Your task to perform on an android device: open app "Pinterest" (install if not already installed) Image 0: 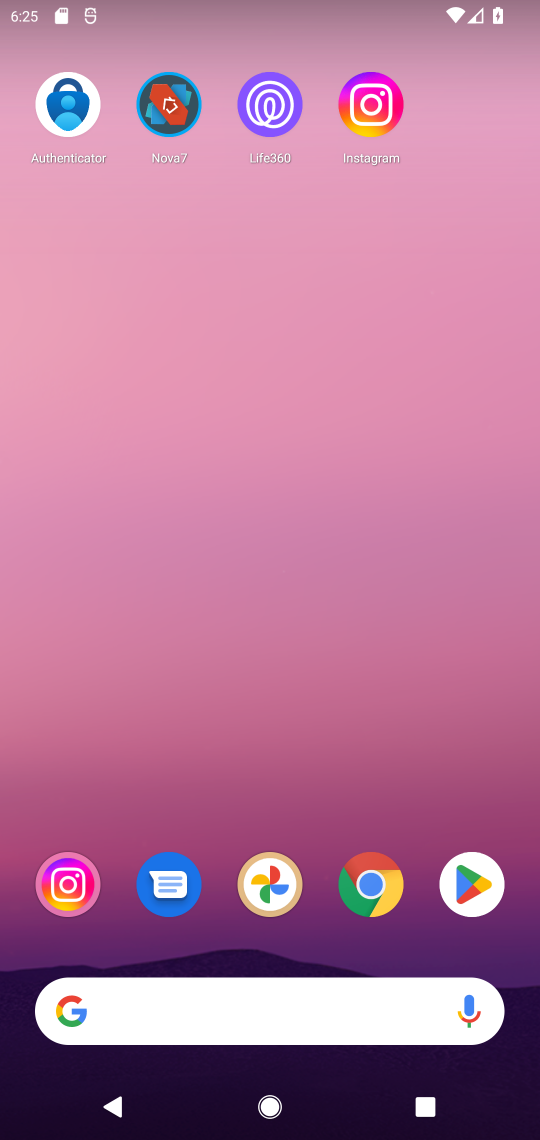
Step 0: press home button
Your task to perform on an android device: open app "Pinterest" (install if not already installed) Image 1: 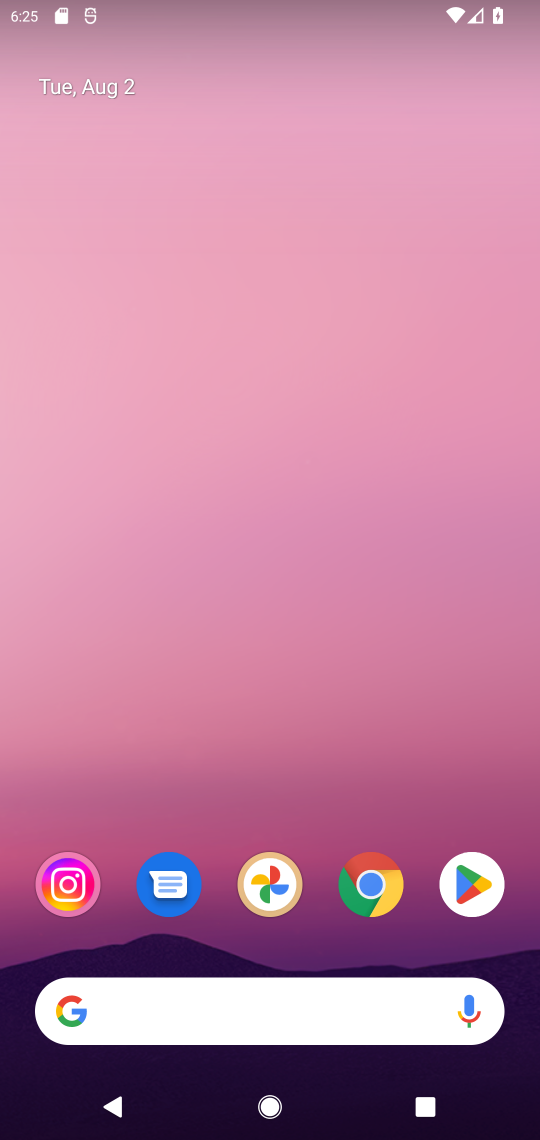
Step 1: click (449, 890)
Your task to perform on an android device: open app "Pinterest" (install if not already installed) Image 2: 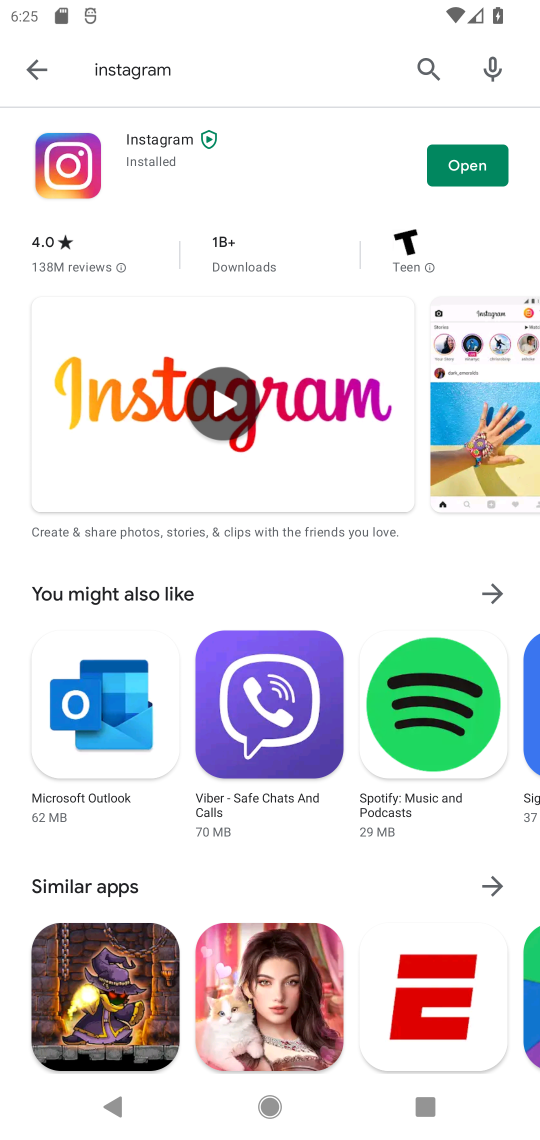
Step 2: click (441, 59)
Your task to perform on an android device: open app "Pinterest" (install if not already installed) Image 3: 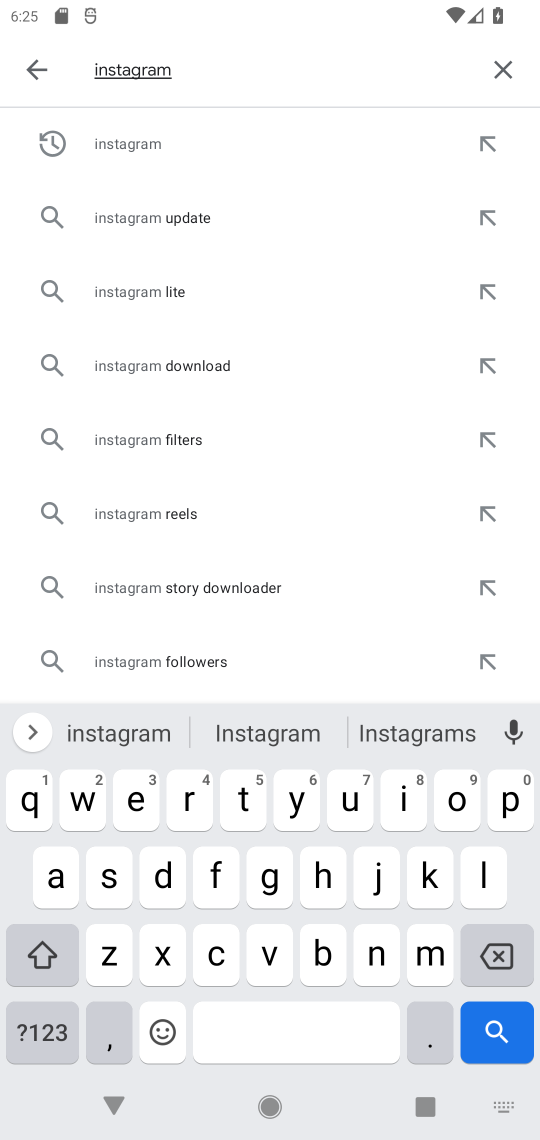
Step 3: click (502, 72)
Your task to perform on an android device: open app "Pinterest" (install if not already installed) Image 4: 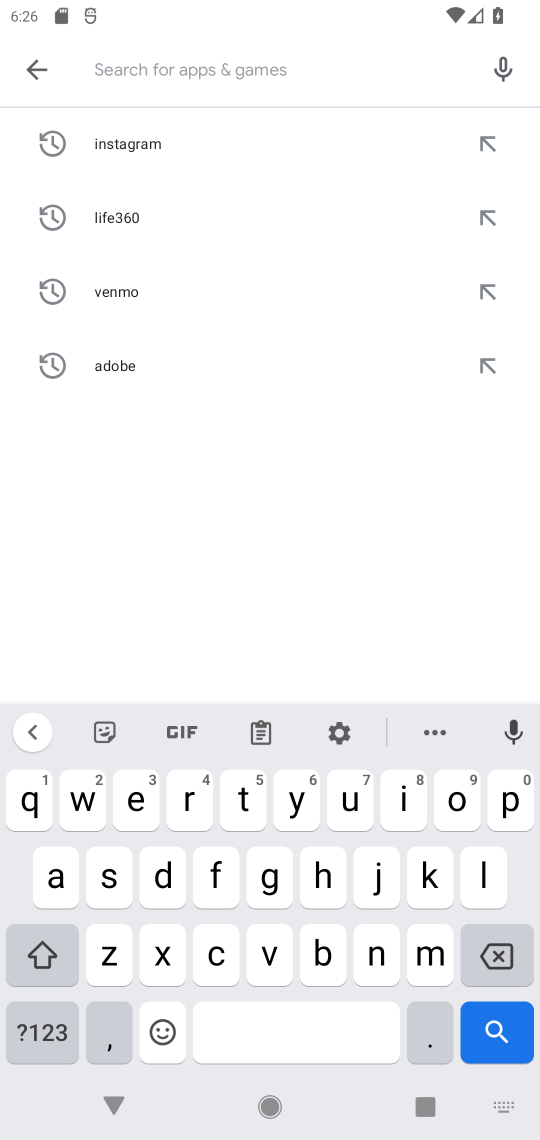
Step 4: click (506, 805)
Your task to perform on an android device: open app "Pinterest" (install if not already installed) Image 5: 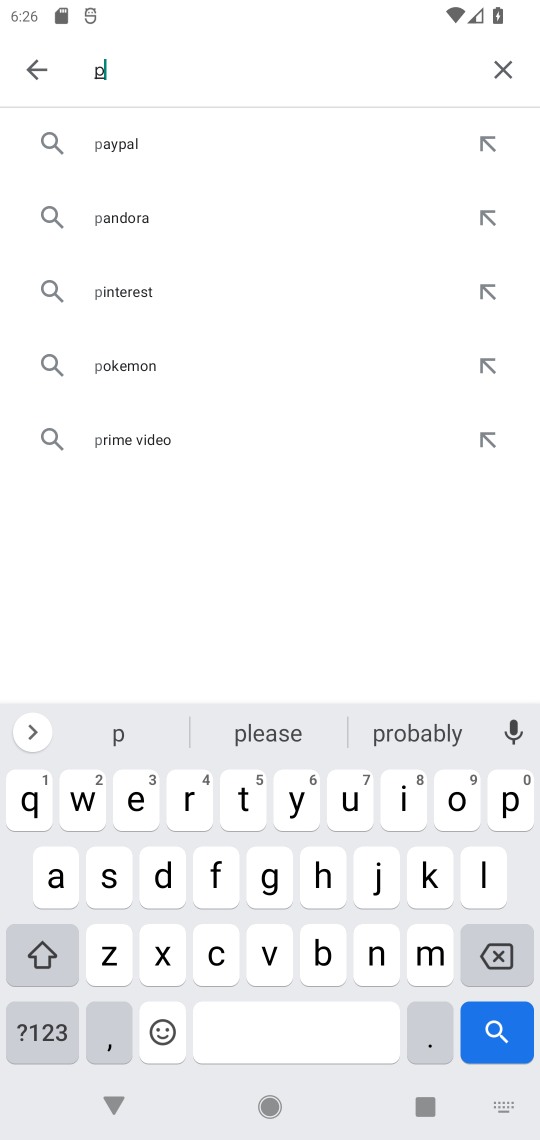
Step 5: click (189, 801)
Your task to perform on an android device: open app "Pinterest" (install if not already installed) Image 6: 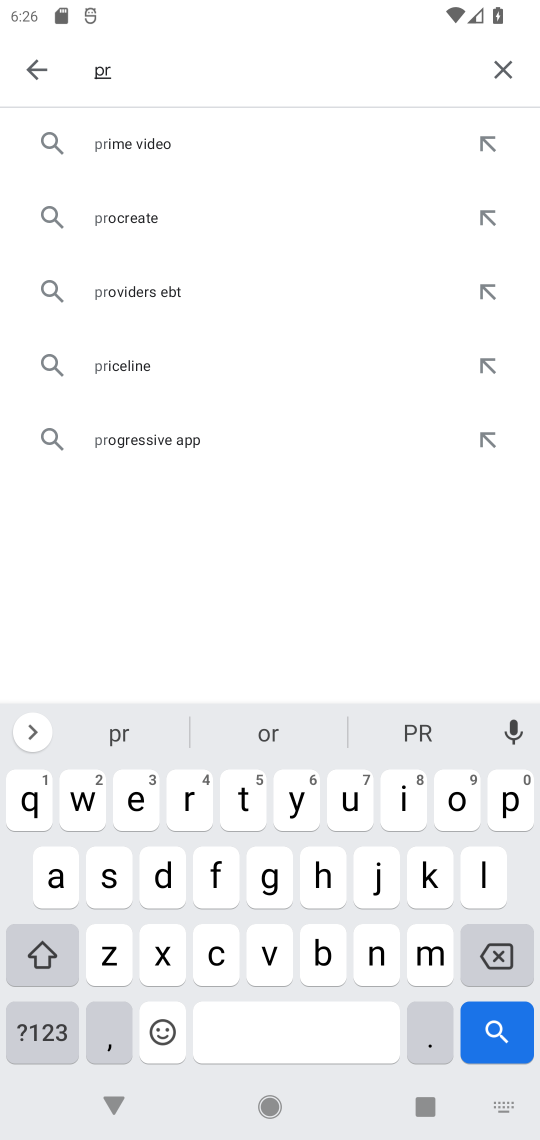
Step 6: click (493, 949)
Your task to perform on an android device: open app "Pinterest" (install if not already installed) Image 7: 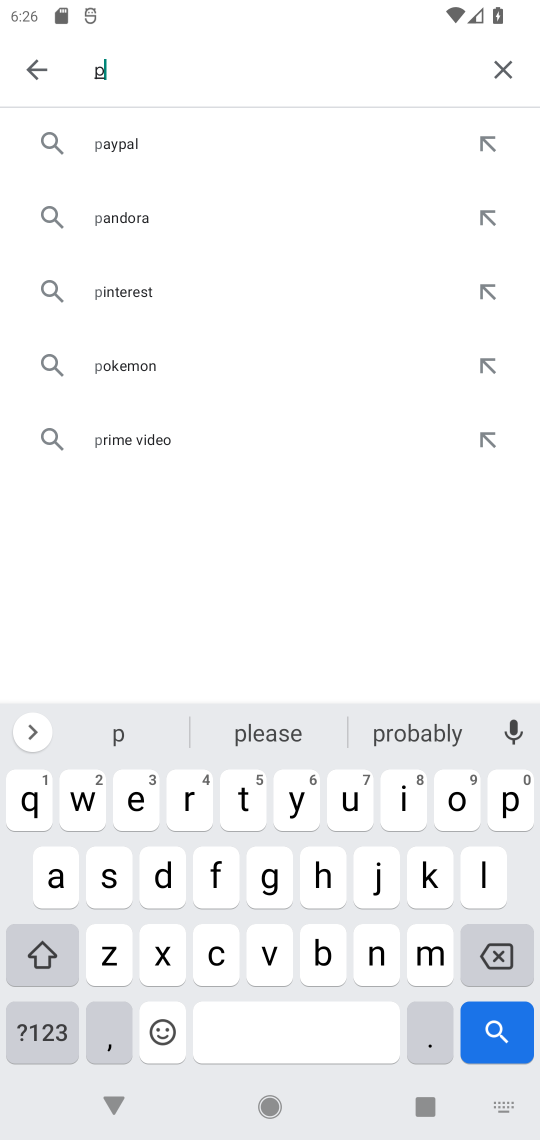
Step 7: click (406, 806)
Your task to perform on an android device: open app "Pinterest" (install if not already installed) Image 8: 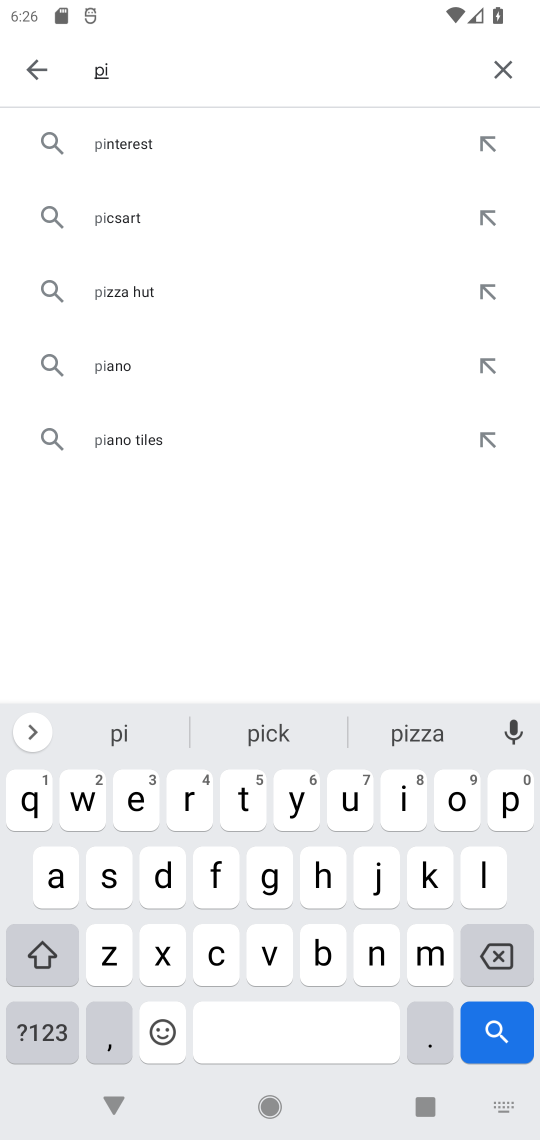
Step 8: click (373, 945)
Your task to perform on an android device: open app "Pinterest" (install if not already installed) Image 9: 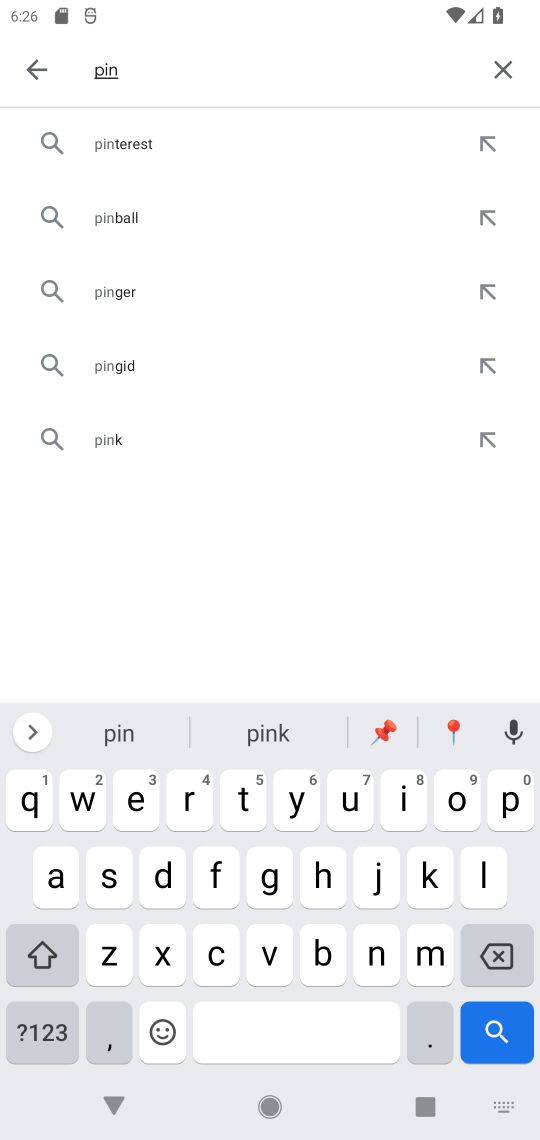
Step 9: click (116, 155)
Your task to perform on an android device: open app "Pinterest" (install if not already installed) Image 10: 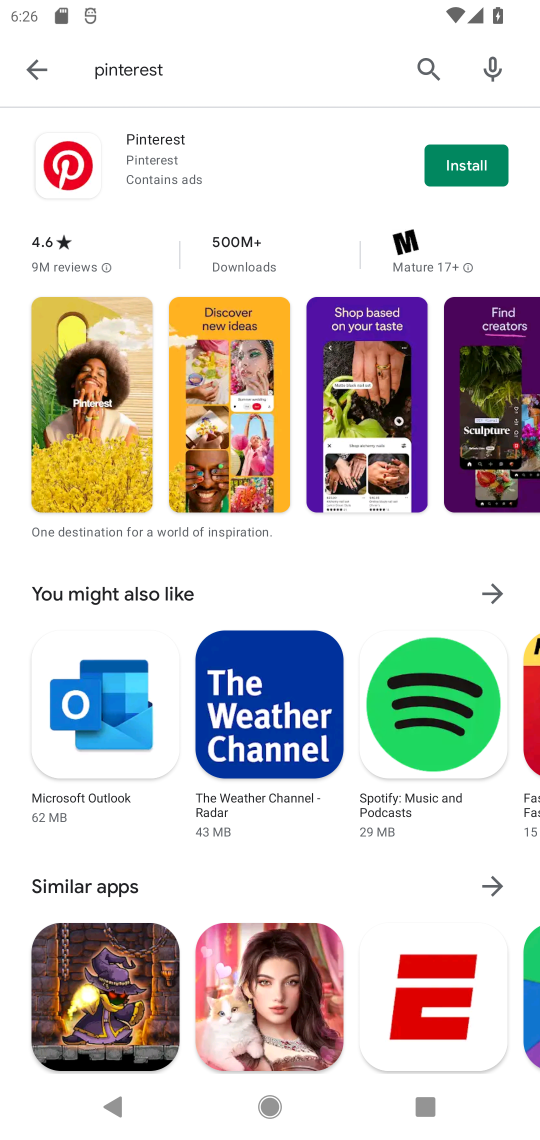
Step 10: click (481, 158)
Your task to perform on an android device: open app "Pinterest" (install if not already installed) Image 11: 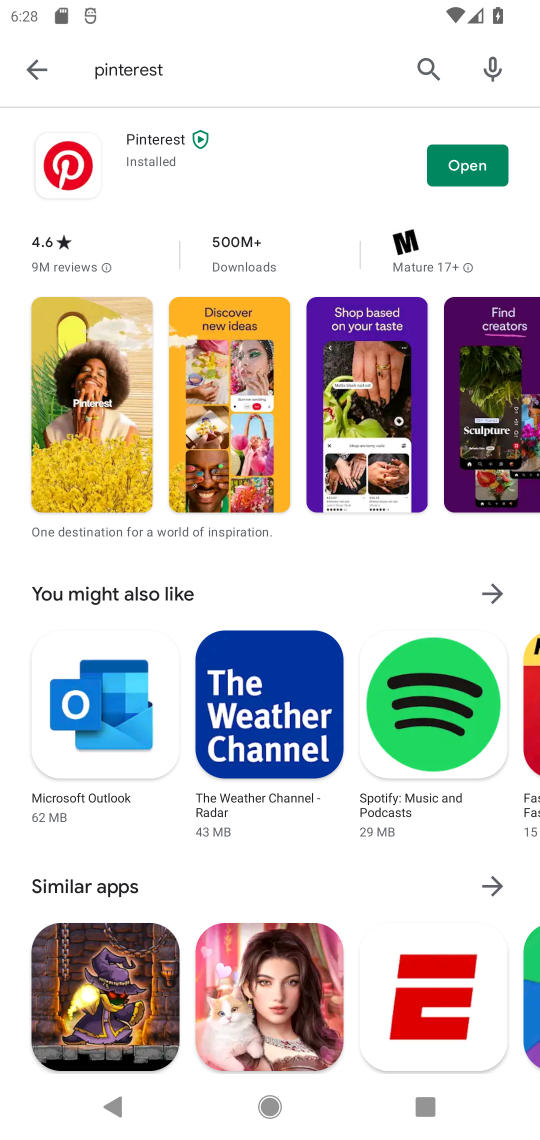
Step 11: click (457, 170)
Your task to perform on an android device: open app "Pinterest" (install if not already installed) Image 12: 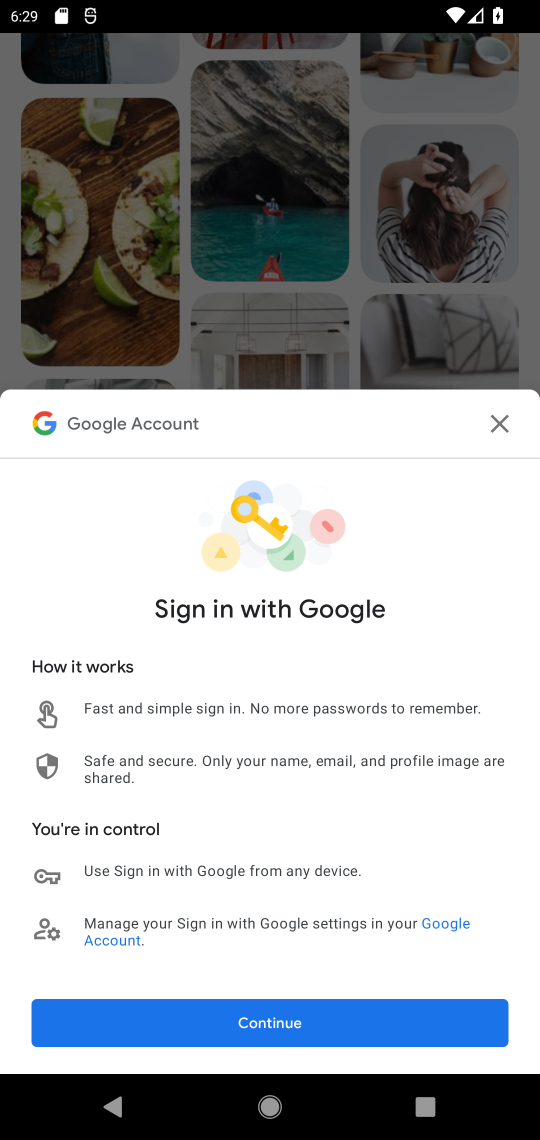
Step 12: task complete